Your task to perform on an android device: see tabs open on other devices in the chrome app Image 0: 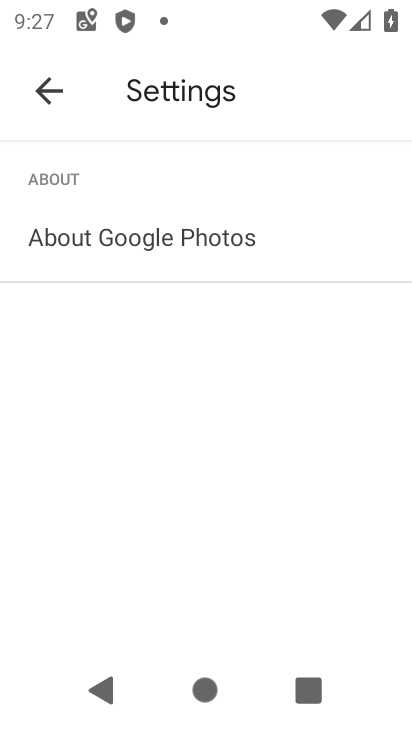
Step 0: press home button
Your task to perform on an android device: see tabs open on other devices in the chrome app Image 1: 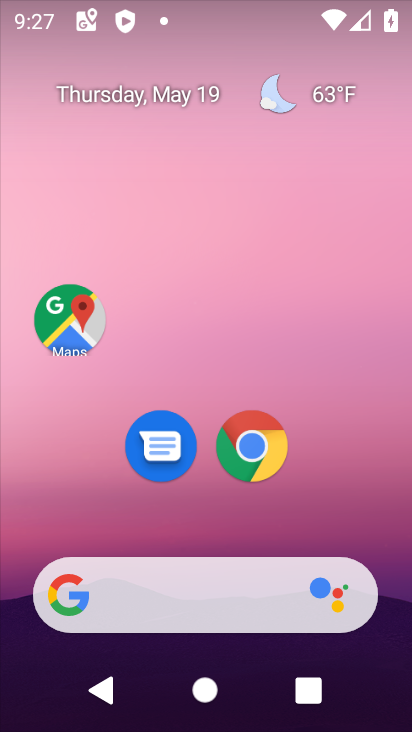
Step 1: click (252, 444)
Your task to perform on an android device: see tabs open on other devices in the chrome app Image 2: 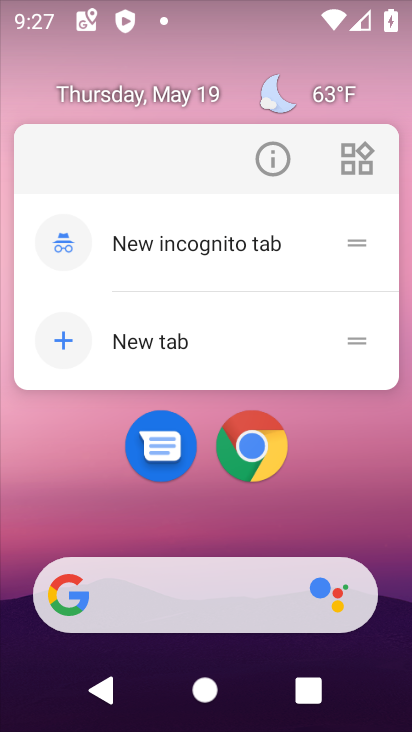
Step 2: click (254, 429)
Your task to perform on an android device: see tabs open on other devices in the chrome app Image 3: 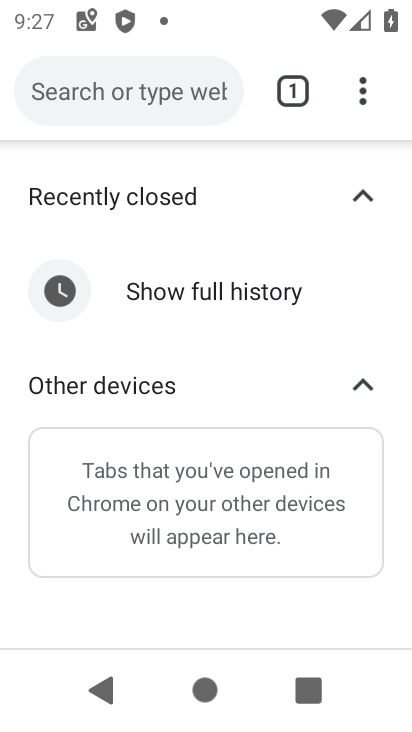
Step 3: click (362, 93)
Your task to perform on an android device: see tabs open on other devices in the chrome app Image 4: 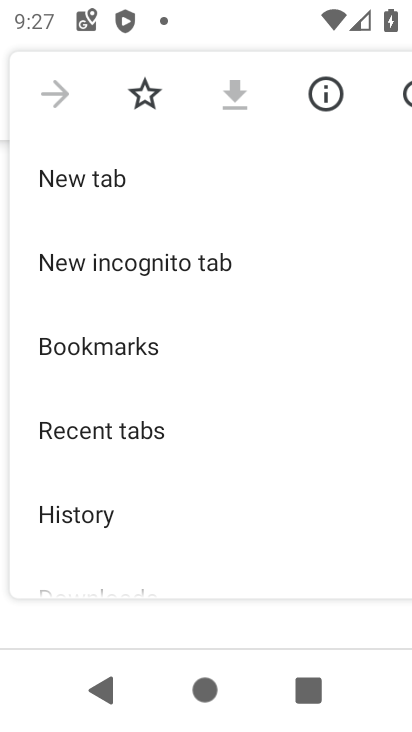
Step 4: click (107, 429)
Your task to perform on an android device: see tabs open on other devices in the chrome app Image 5: 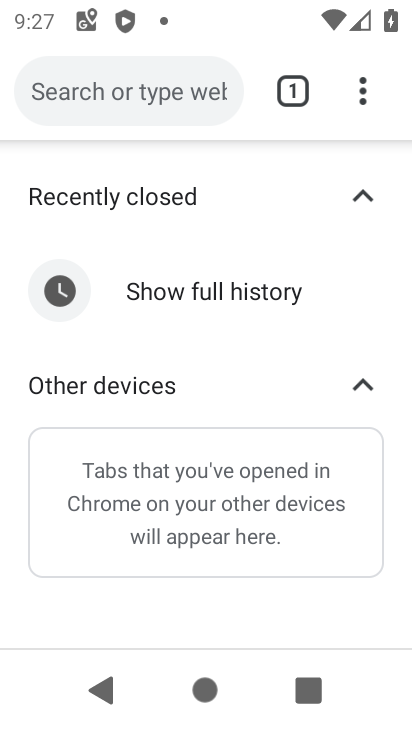
Step 5: task complete